Your task to perform on an android device: Open Google Maps Image 0: 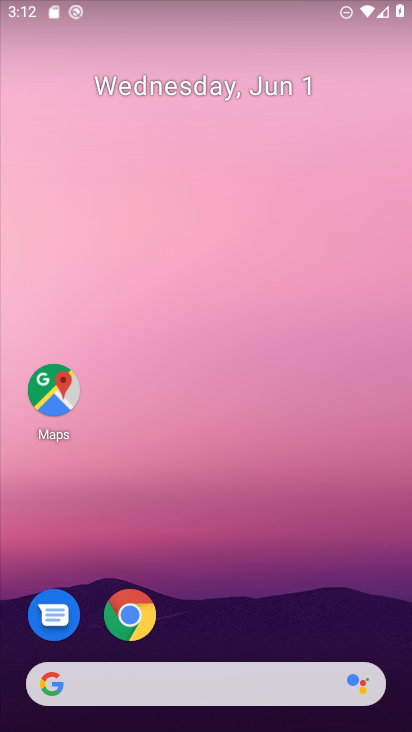
Step 0: press home button
Your task to perform on an android device: Open Google Maps Image 1: 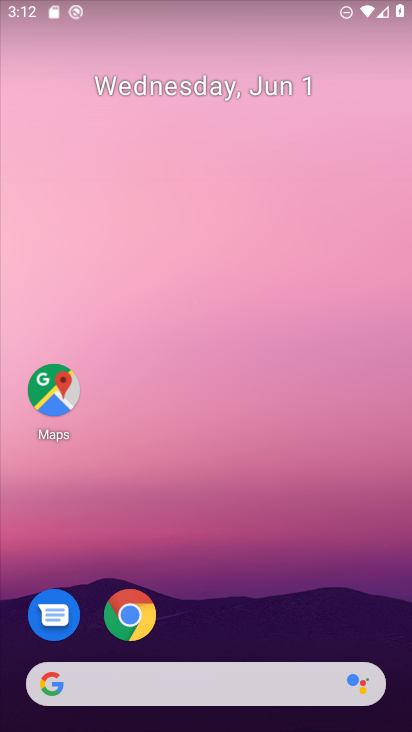
Step 1: click (56, 383)
Your task to perform on an android device: Open Google Maps Image 2: 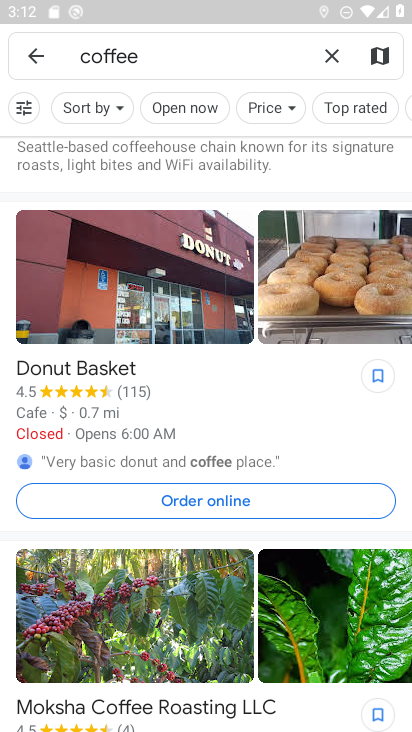
Step 2: click (27, 52)
Your task to perform on an android device: Open Google Maps Image 3: 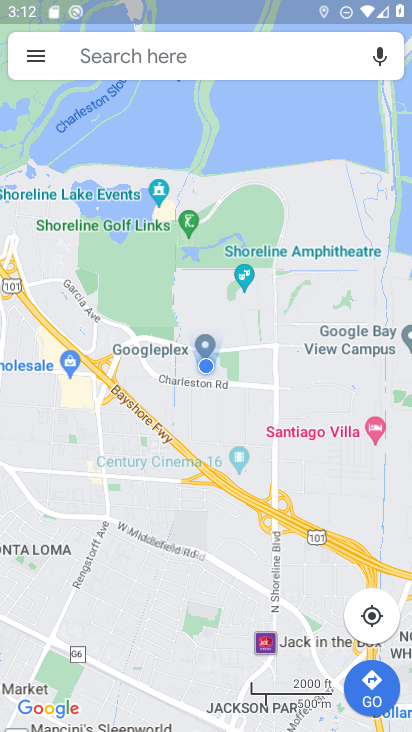
Step 3: click (34, 52)
Your task to perform on an android device: Open Google Maps Image 4: 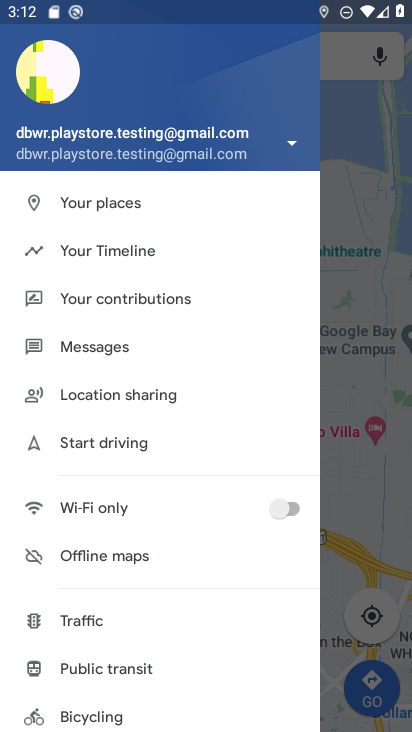
Step 4: click (382, 456)
Your task to perform on an android device: Open Google Maps Image 5: 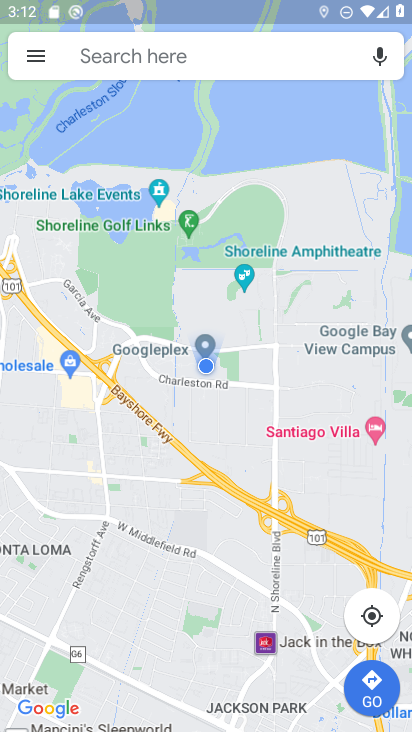
Step 5: task complete